Your task to perform on an android device: open sync settings in chrome Image 0: 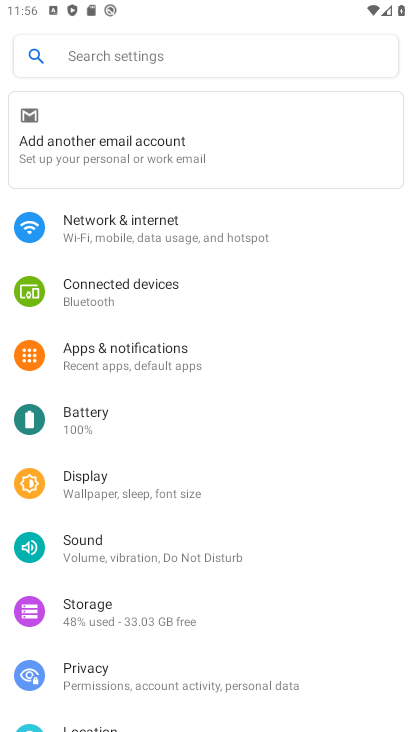
Step 0: press home button
Your task to perform on an android device: open sync settings in chrome Image 1: 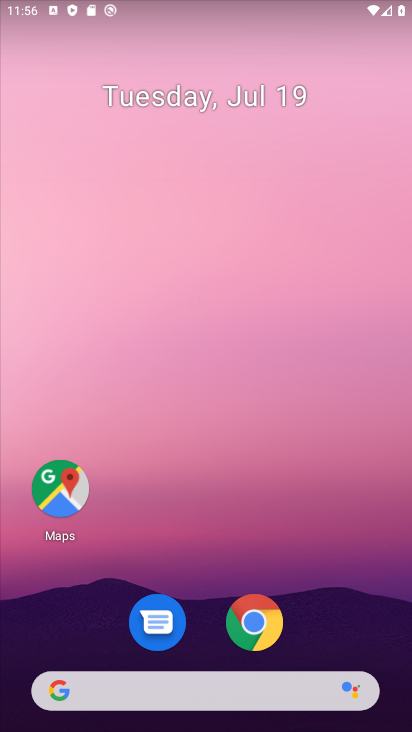
Step 1: click (254, 636)
Your task to perform on an android device: open sync settings in chrome Image 2: 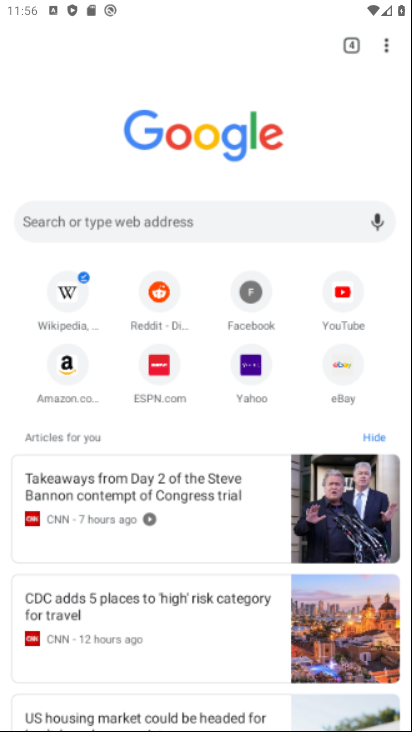
Step 2: click (381, 50)
Your task to perform on an android device: open sync settings in chrome Image 3: 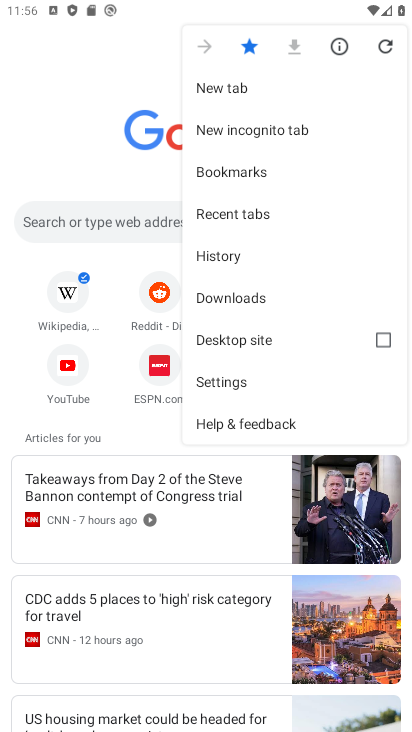
Step 3: click (239, 371)
Your task to perform on an android device: open sync settings in chrome Image 4: 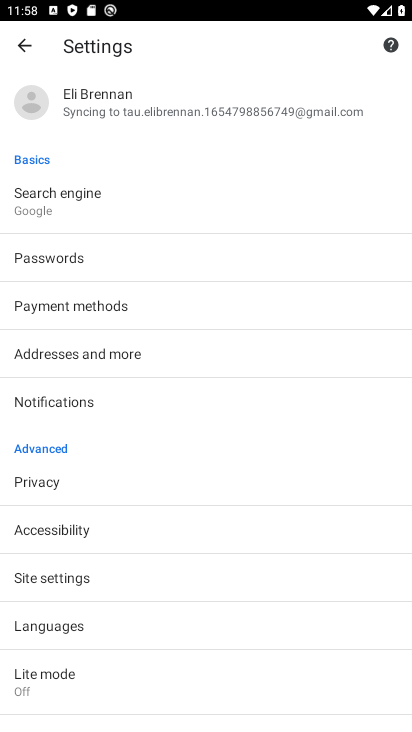
Step 4: task complete